Your task to perform on an android device: Do I have any events today? Image 0: 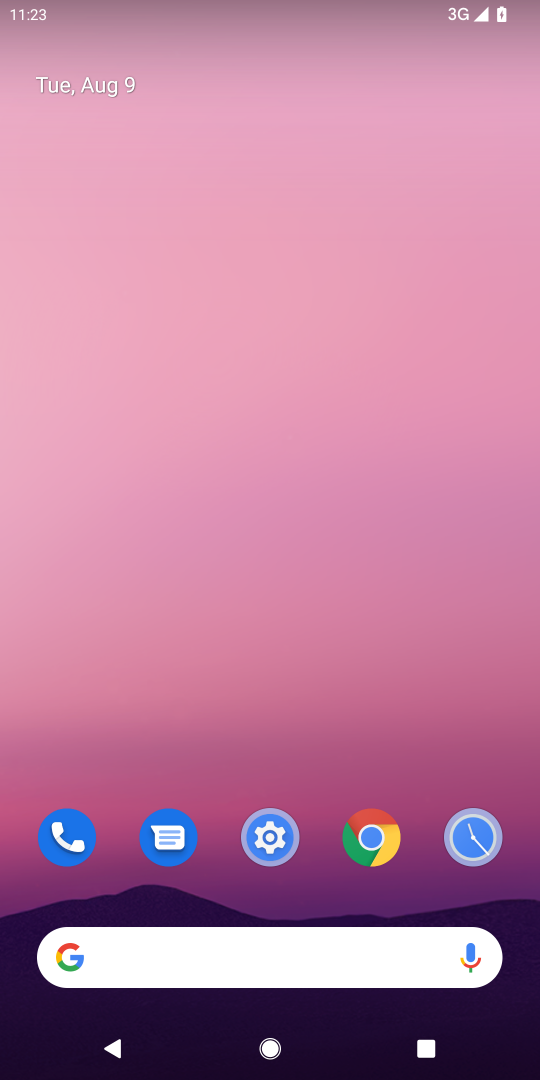
Step 0: drag from (313, 905) to (296, 84)
Your task to perform on an android device: Do I have any events today? Image 1: 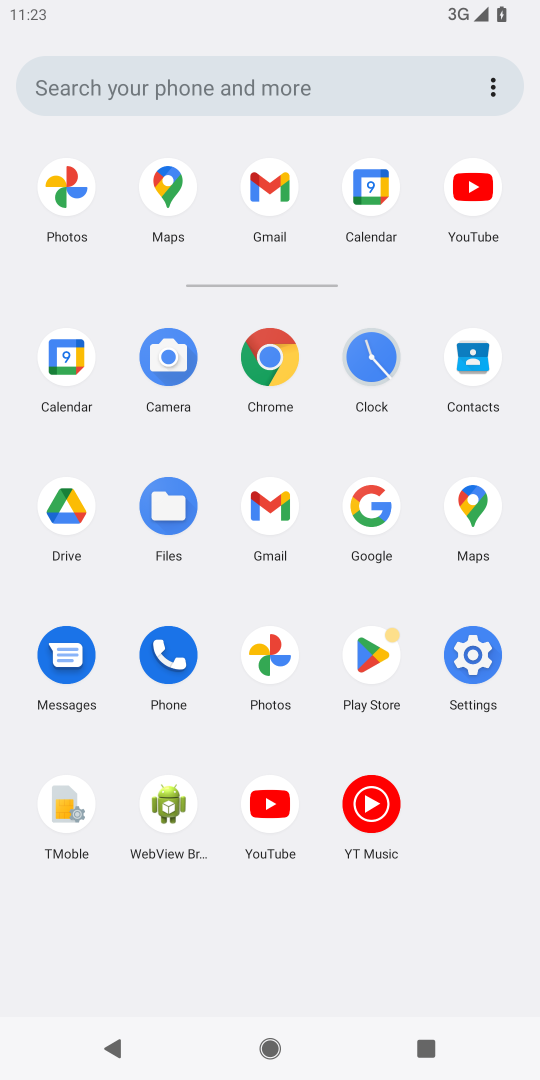
Step 1: click (63, 360)
Your task to perform on an android device: Do I have any events today? Image 2: 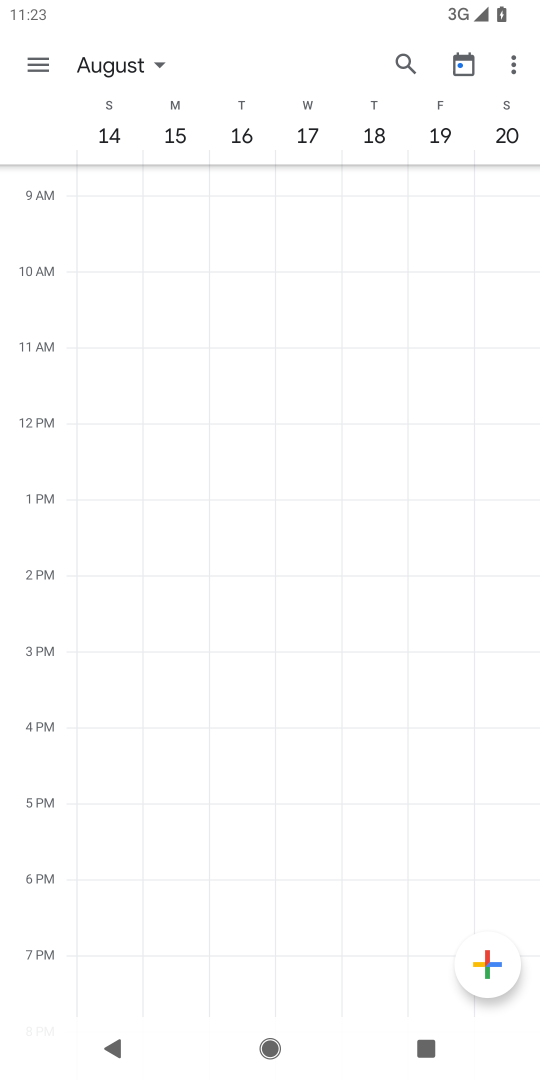
Step 2: click (156, 63)
Your task to perform on an android device: Do I have any events today? Image 3: 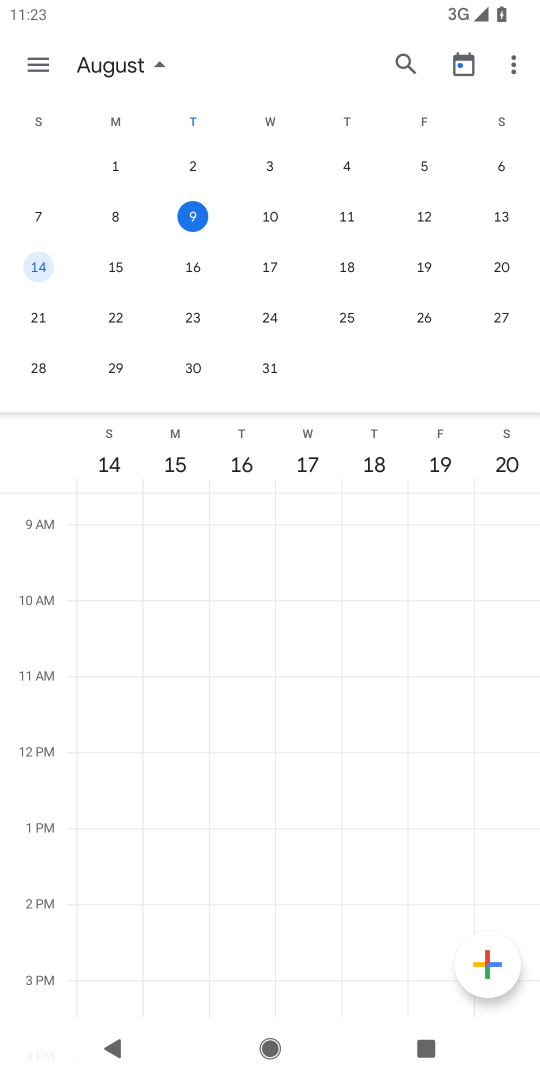
Step 3: click (196, 220)
Your task to perform on an android device: Do I have any events today? Image 4: 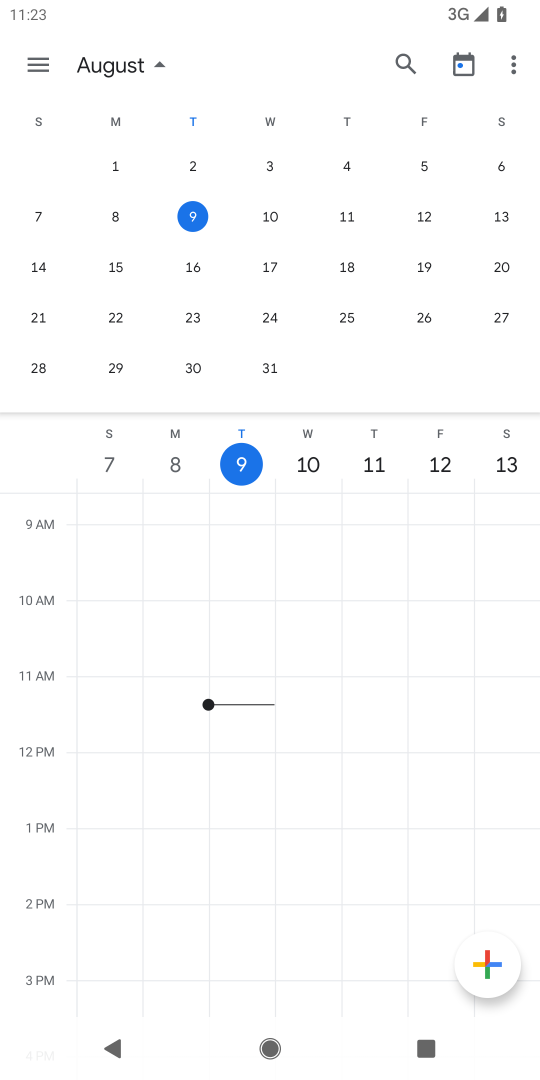
Step 4: click (196, 220)
Your task to perform on an android device: Do I have any events today? Image 5: 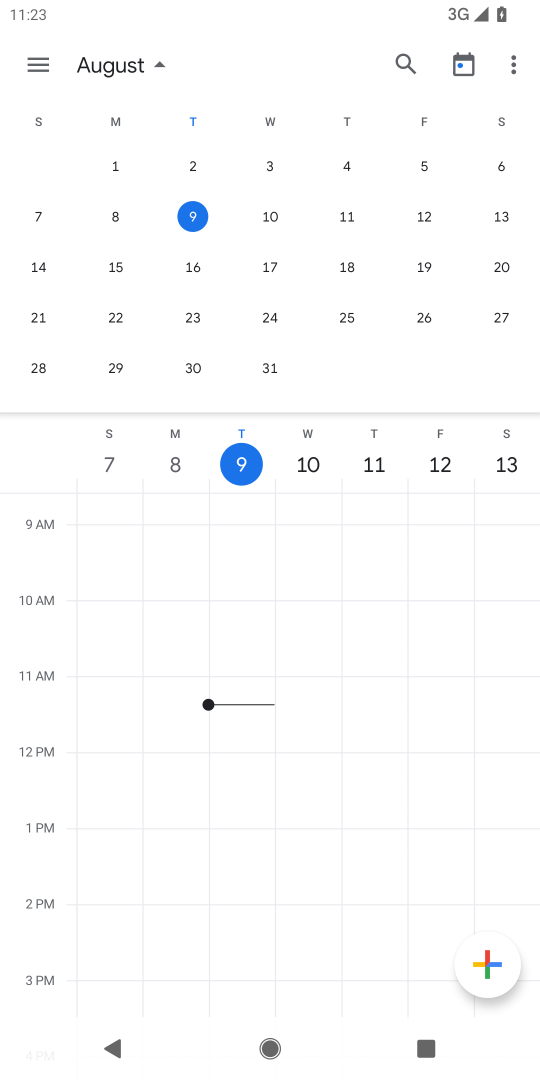
Step 5: click (246, 464)
Your task to perform on an android device: Do I have any events today? Image 6: 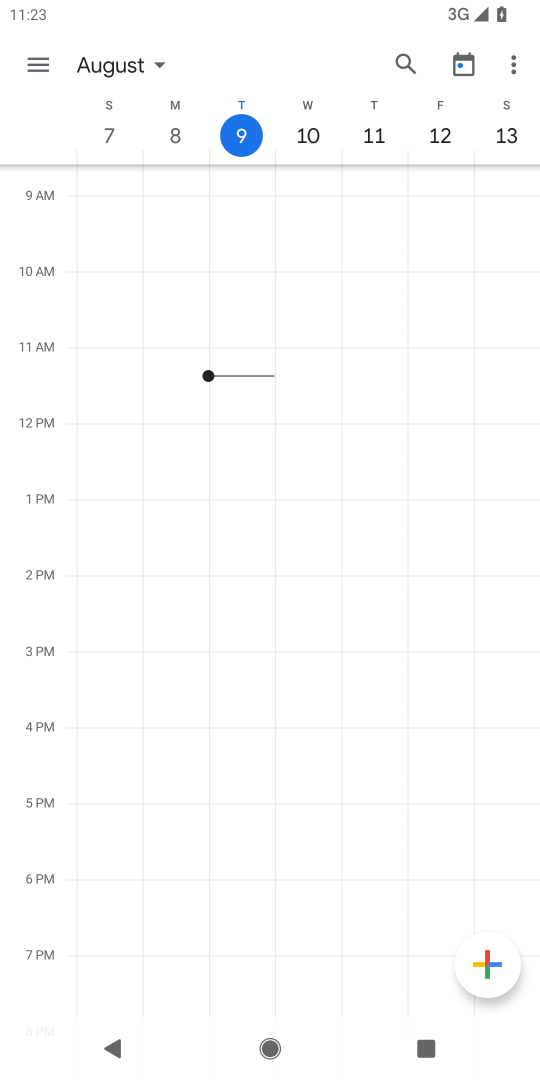
Step 6: click (247, 143)
Your task to perform on an android device: Do I have any events today? Image 7: 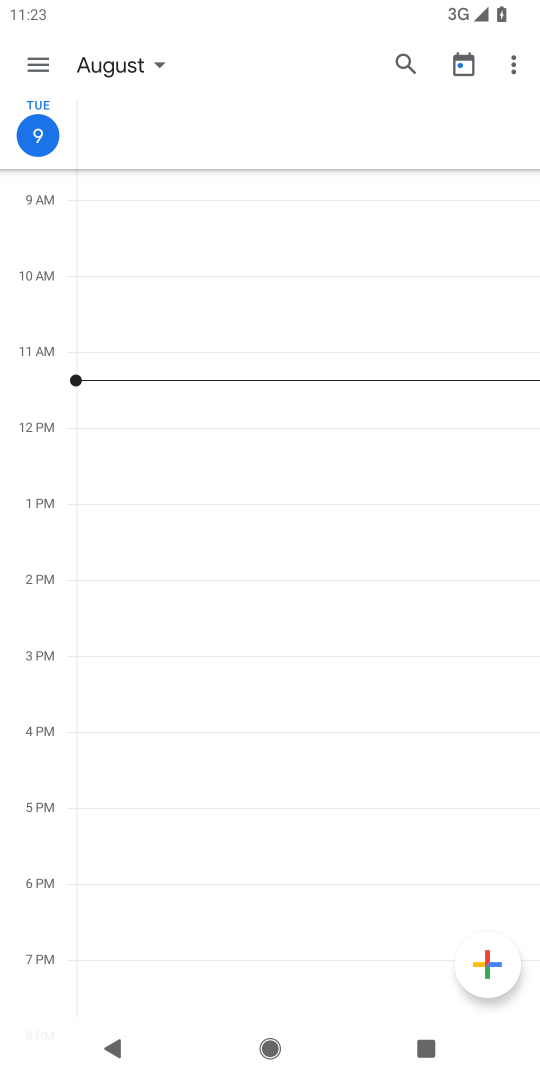
Step 7: task complete